Your task to perform on an android device: change notifications settings Image 0: 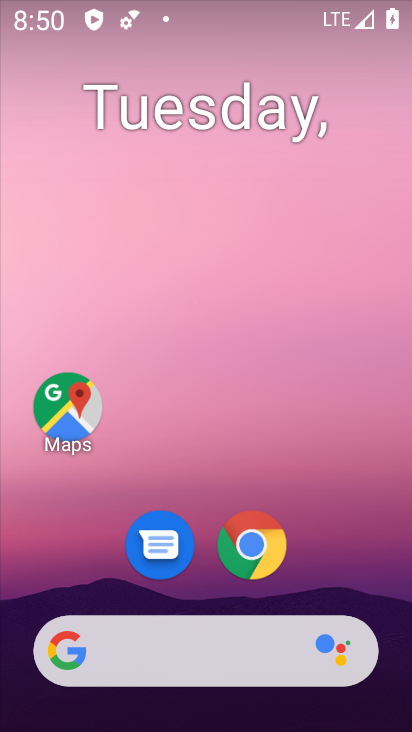
Step 0: drag from (212, 588) to (191, 29)
Your task to perform on an android device: change notifications settings Image 1: 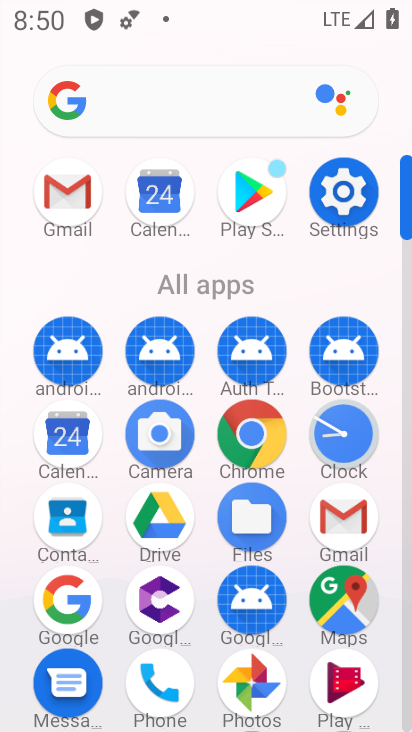
Step 1: click (346, 185)
Your task to perform on an android device: change notifications settings Image 2: 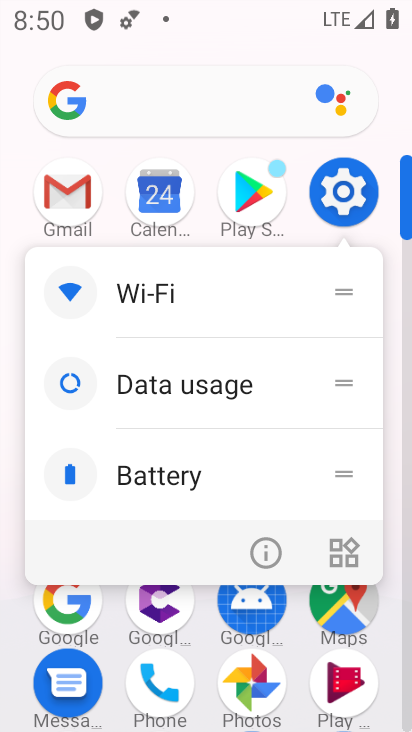
Step 2: click (346, 185)
Your task to perform on an android device: change notifications settings Image 3: 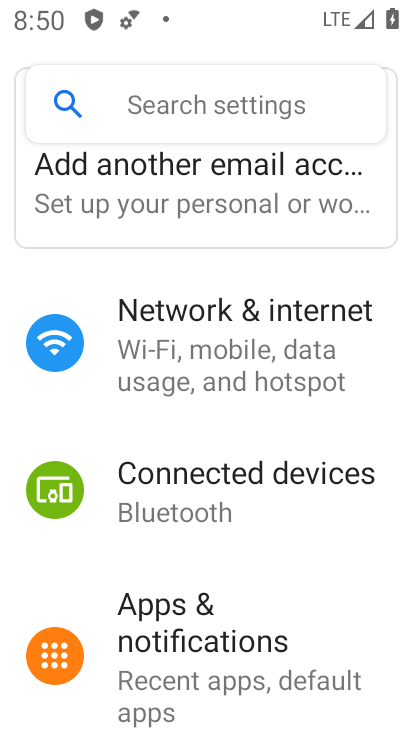
Step 3: click (149, 628)
Your task to perform on an android device: change notifications settings Image 4: 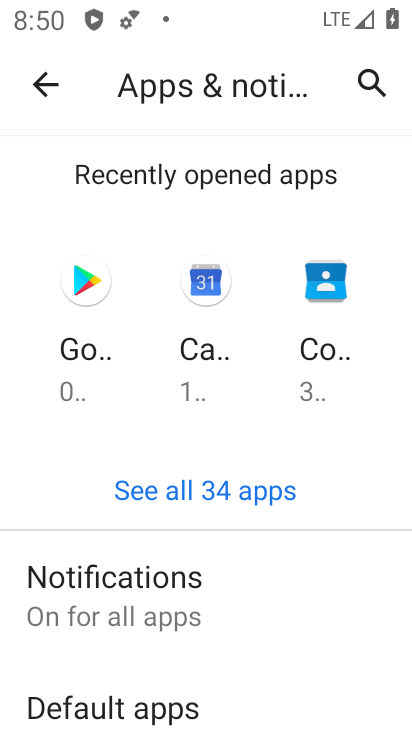
Step 4: click (133, 613)
Your task to perform on an android device: change notifications settings Image 5: 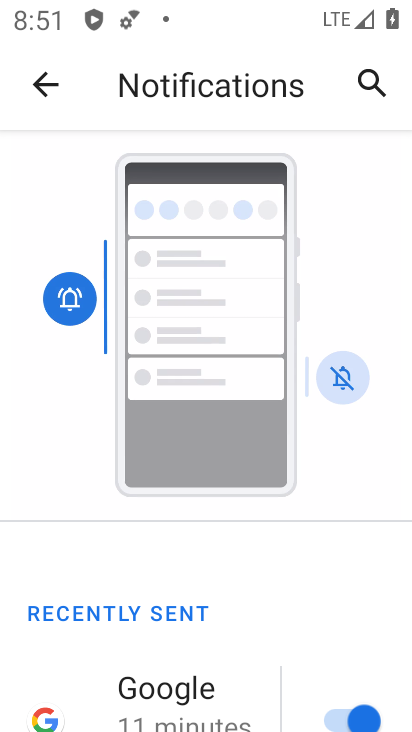
Step 5: drag from (264, 633) to (251, 48)
Your task to perform on an android device: change notifications settings Image 6: 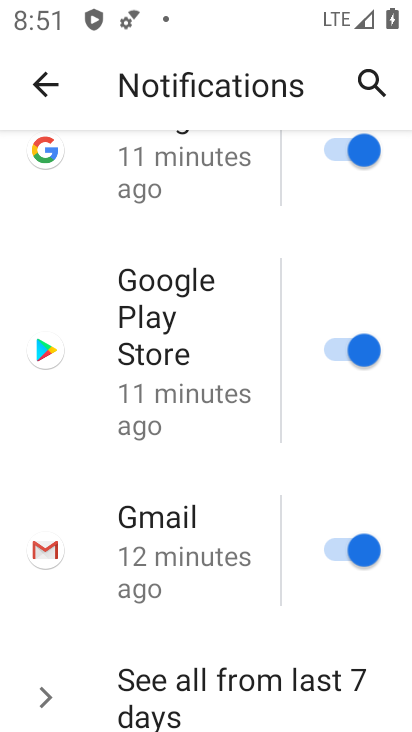
Step 6: drag from (221, 665) to (188, 365)
Your task to perform on an android device: change notifications settings Image 7: 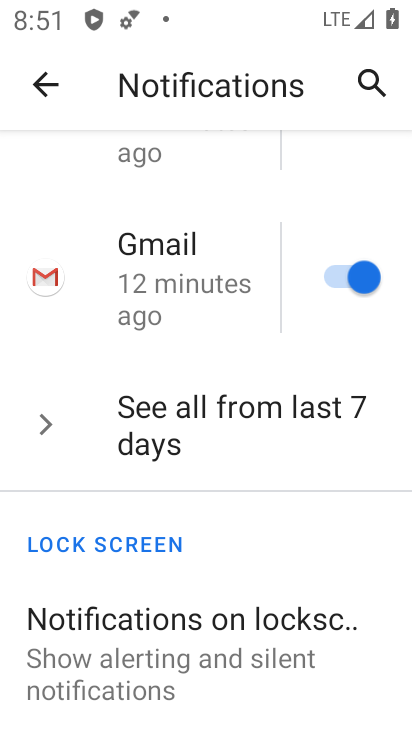
Step 7: click (230, 424)
Your task to perform on an android device: change notifications settings Image 8: 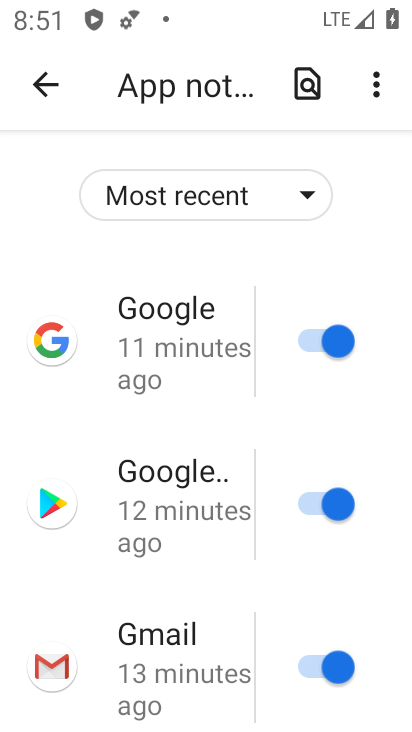
Step 8: click (321, 360)
Your task to perform on an android device: change notifications settings Image 9: 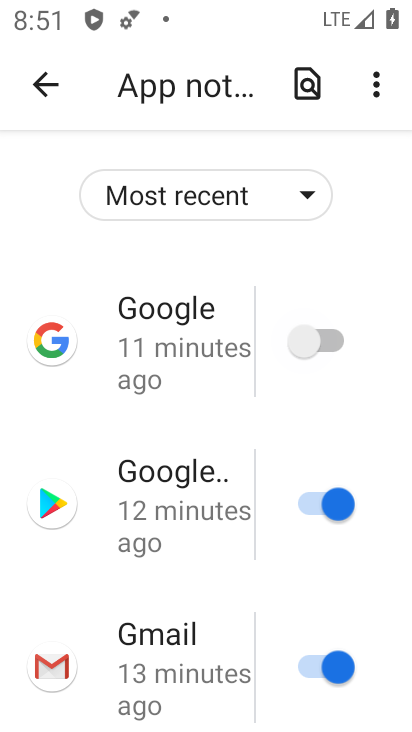
Step 9: click (332, 504)
Your task to perform on an android device: change notifications settings Image 10: 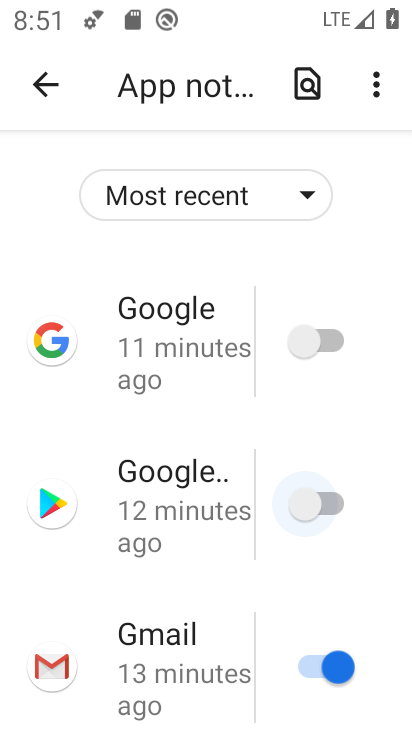
Step 10: click (307, 670)
Your task to perform on an android device: change notifications settings Image 11: 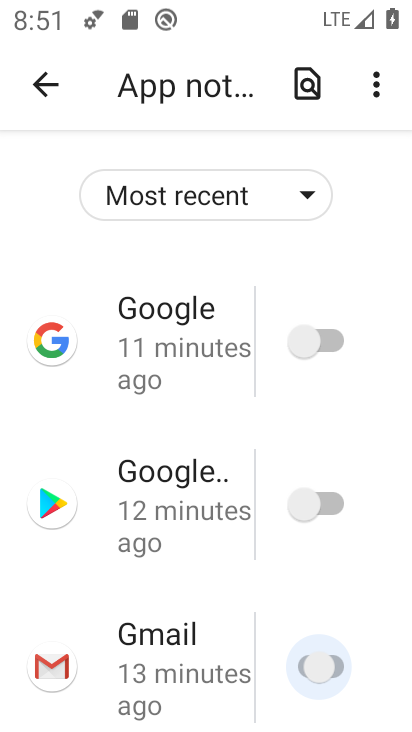
Step 11: drag from (149, 677) to (98, 216)
Your task to perform on an android device: change notifications settings Image 12: 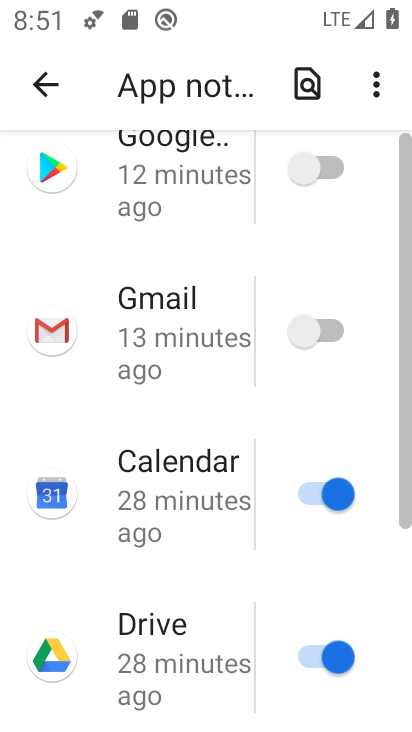
Step 12: click (295, 471)
Your task to perform on an android device: change notifications settings Image 13: 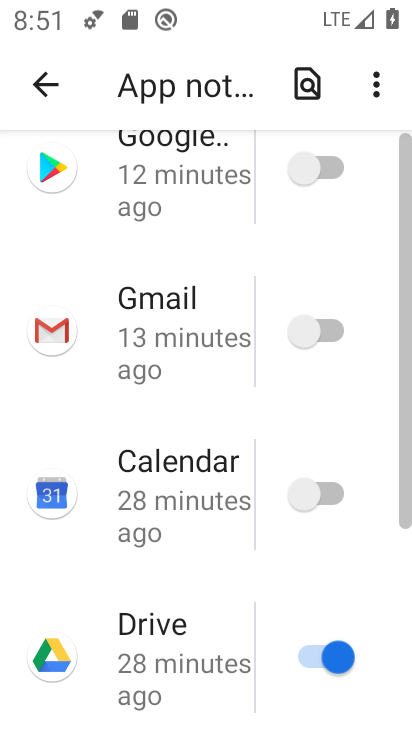
Step 13: click (304, 641)
Your task to perform on an android device: change notifications settings Image 14: 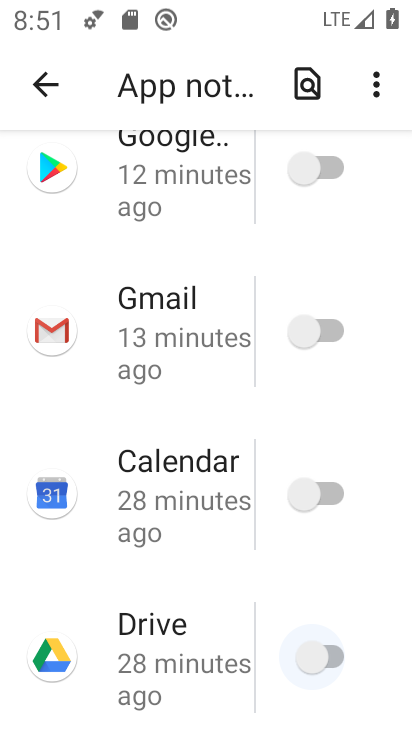
Step 14: drag from (197, 671) to (164, 194)
Your task to perform on an android device: change notifications settings Image 15: 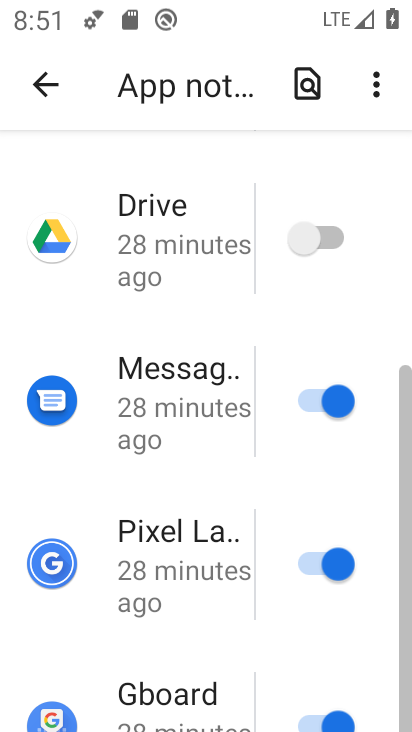
Step 15: click (318, 390)
Your task to perform on an android device: change notifications settings Image 16: 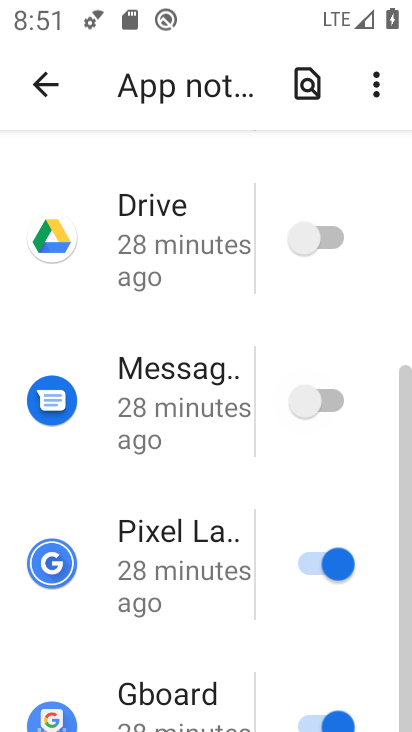
Step 16: click (324, 565)
Your task to perform on an android device: change notifications settings Image 17: 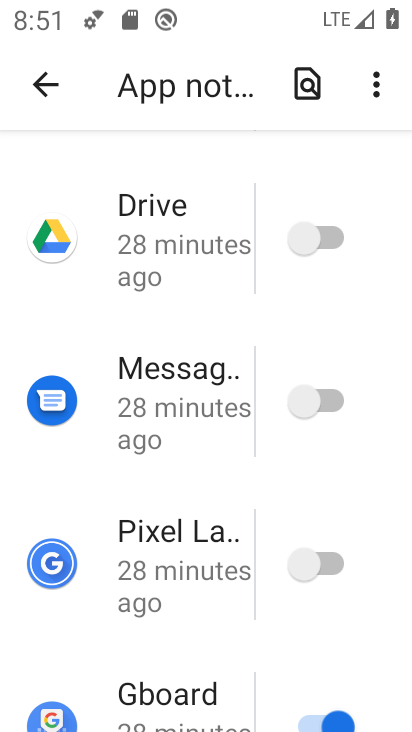
Step 17: click (331, 706)
Your task to perform on an android device: change notifications settings Image 18: 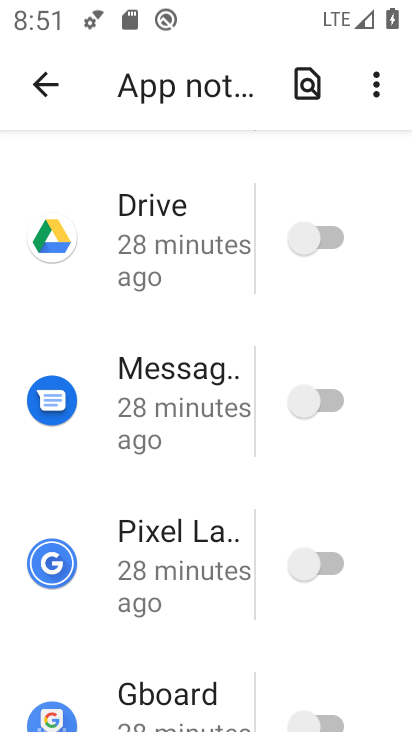
Step 18: drag from (166, 680) to (168, 191)
Your task to perform on an android device: change notifications settings Image 19: 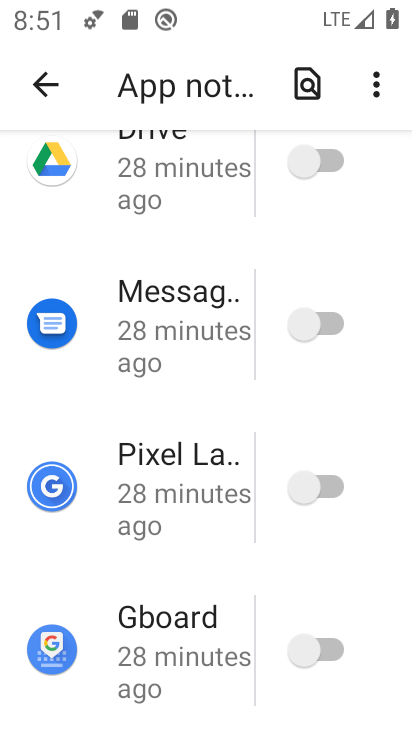
Step 19: click (36, 78)
Your task to perform on an android device: change notifications settings Image 20: 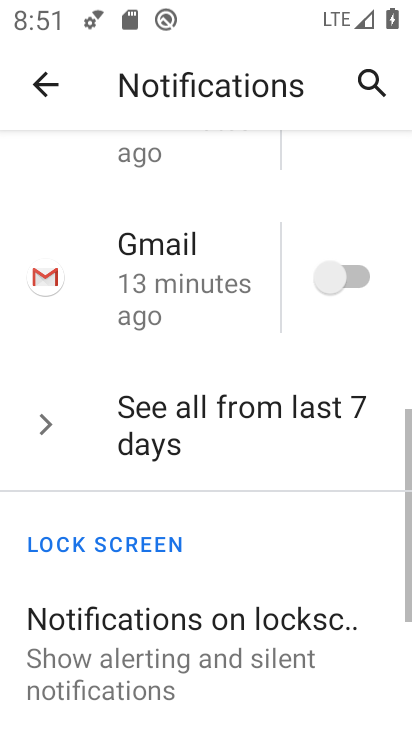
Step 20: drag from (223, 614) to (152, 192)
Your task to perform on an android device: change notifications settings Image 21: 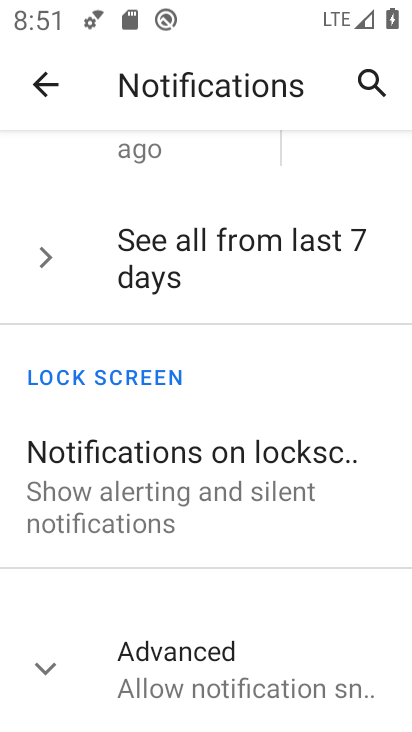
Step 21: click (145, 431)
Your task to perform on an android device: change notifications settings Image 22: 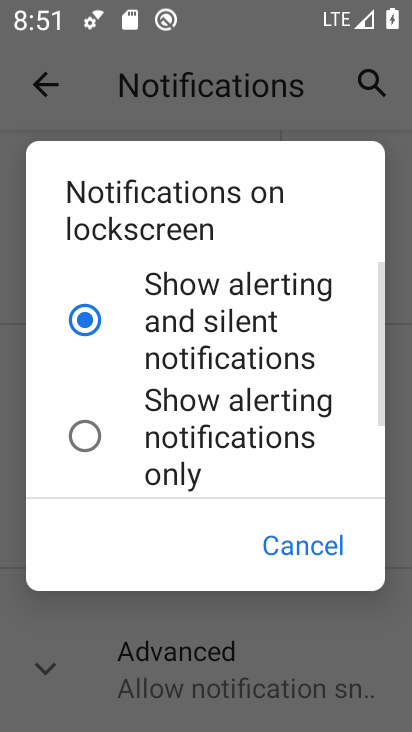
Step 22: click (137, 410)
Your task to perform on an android device: change notifications settings Image 23: 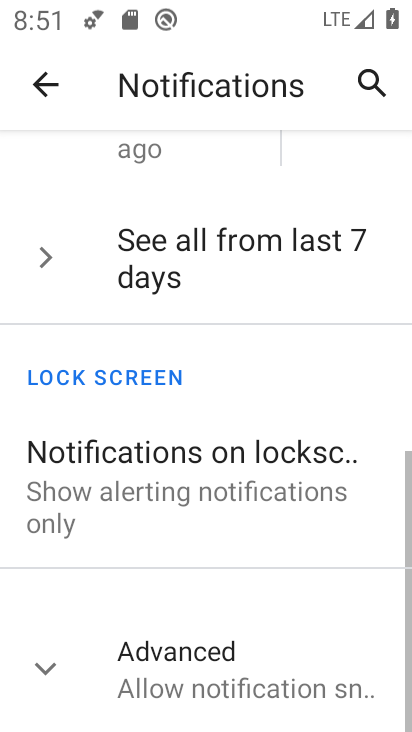
Step 23: click (180, 684)
Your task to perform on an android device: change notifications settings Image 24: 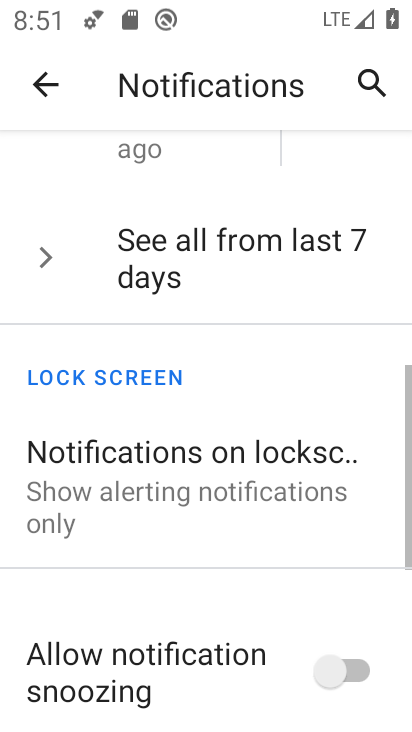
Step 24: drag from (238, 621) to (206, 153)
Your task to perform on an android device: change notifications settings Image 25: 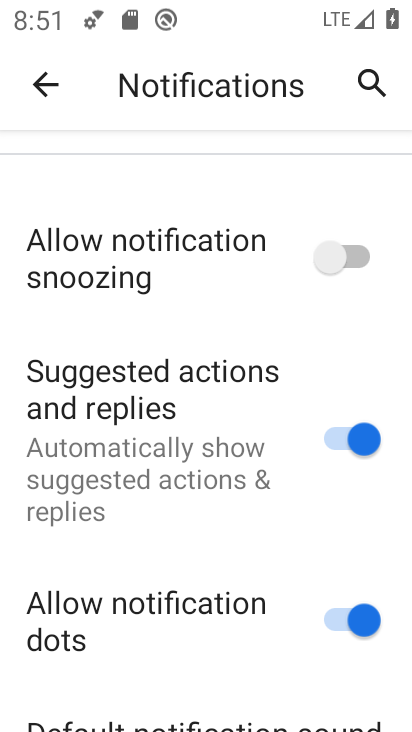
Step 25: click (349, 267)
Your task to perform on an android device: change notifications settings Image 26: 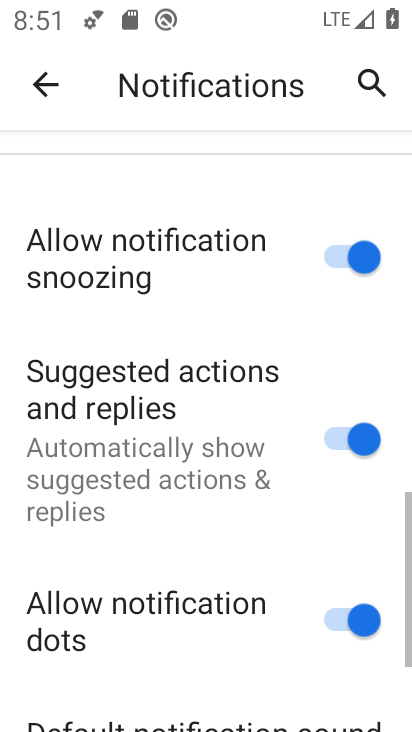
Step 26: click (358, 433)
Your task to perform on an android device: change notifications settings Image 27: 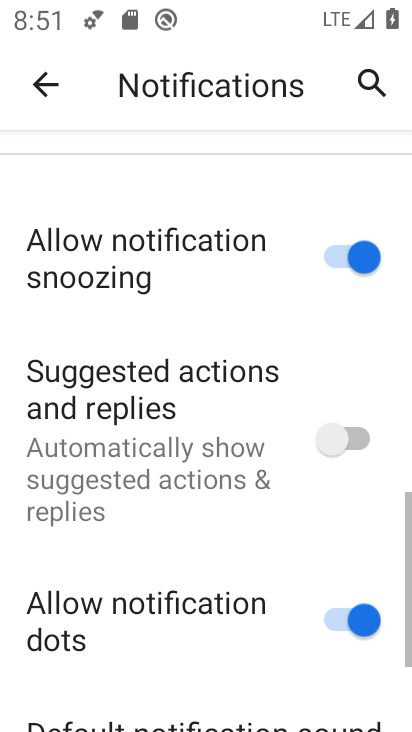
Step 27: click (322, 609)
Your task to perform on an android device: change notifications settings Image 28: 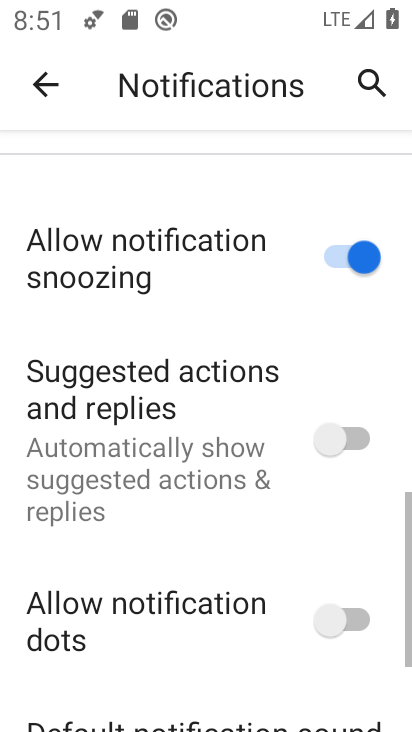
Step 28: task complete